Your task to perform on an android device: remove spam from my inbox in the gmail app Image 0: 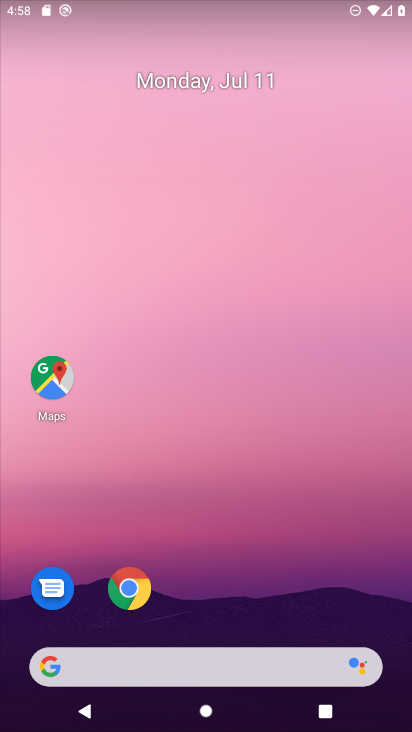
Step 0: press home button
Your task to perform on an android device: remove spam from my inbox in the gmail app Image 1: 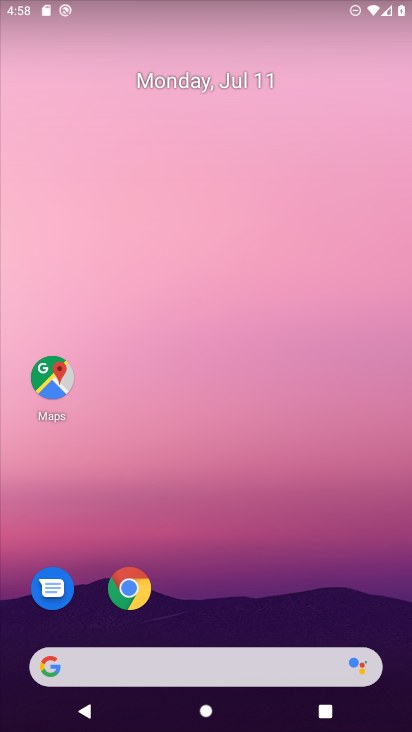
Step 1: drag from (233, 461) to (233, 52)
Your task to perform on an android device: remove spam from my inbox in the gmail app Image 2: 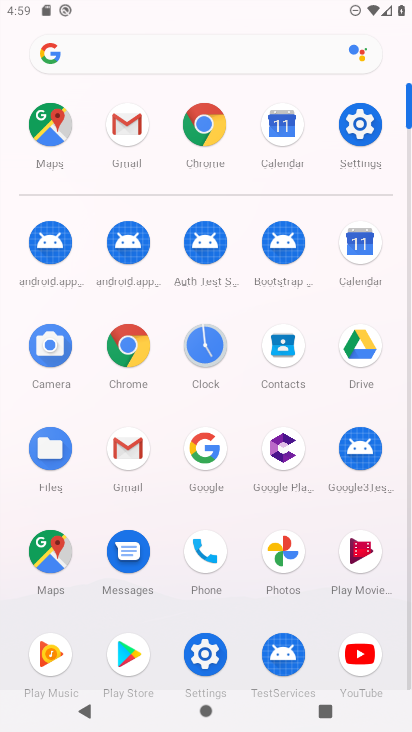
Step 2: click (117, 137)
Your task to perform on an android device: remove spam from my inbox in the gmail app Image 3: 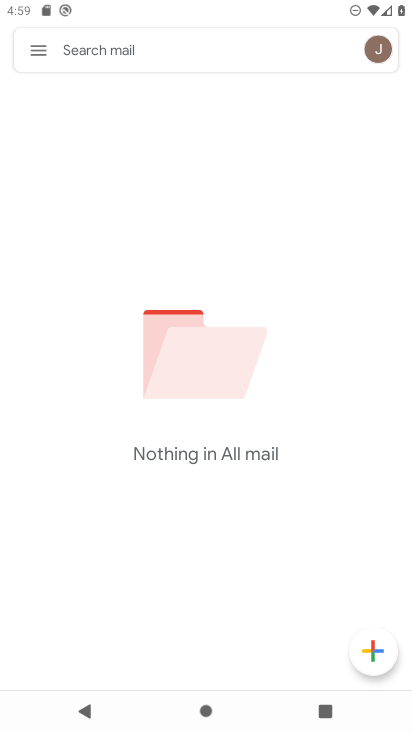
Step 3: click (36, 45)
Your task to perform on an android device: remove spam from my inbox in the gmail app Image 4: 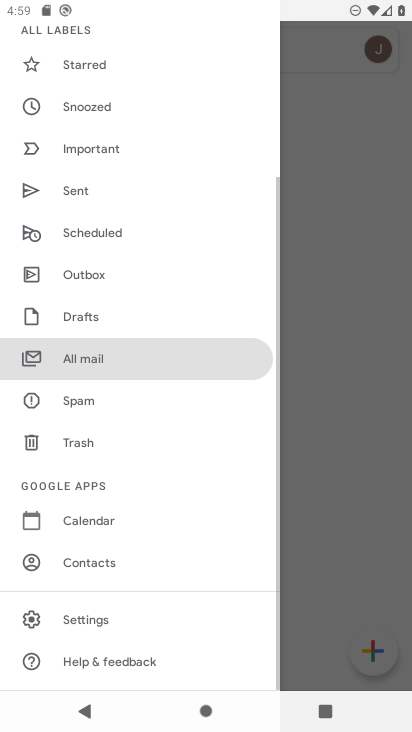
Step 4: click (68, 402)
Your task to perform on an android device: remove spam from my inbox in the gmail app Image 5: 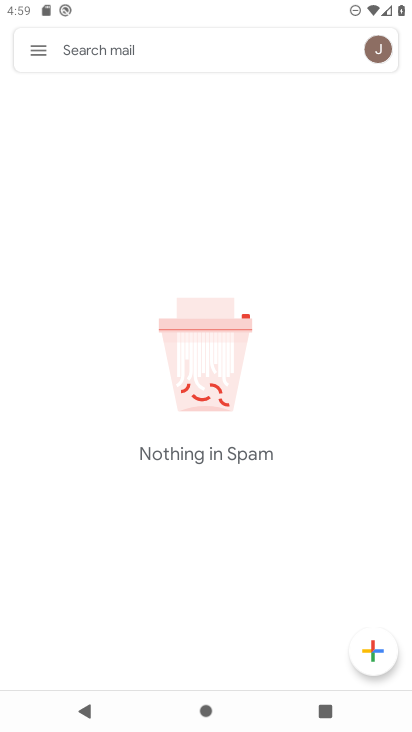
Step 5: task complete